Your task to perform on an android device: Open the stopwatch Image 0: 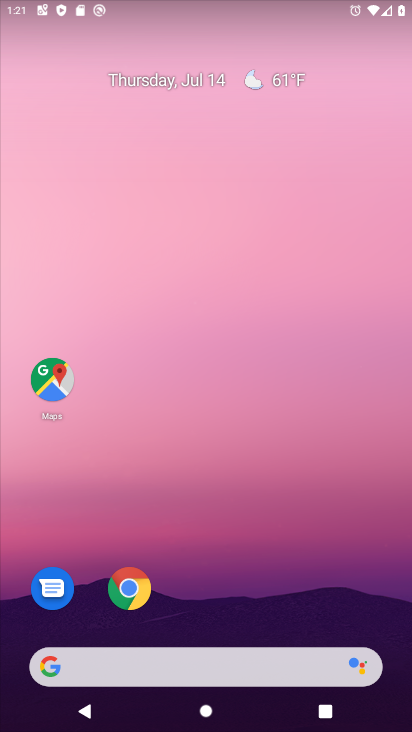
Step 0: drag from (310, 603) to (348, 286)
Your task to perform on an android device: Open the stopwatch Image 1: 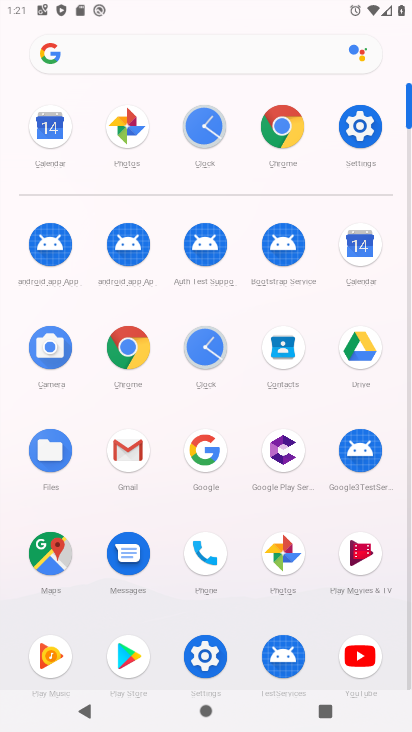
Step 1: click (200, 107)
Your task to perform on an android device: Open the stopwatch Image 2: 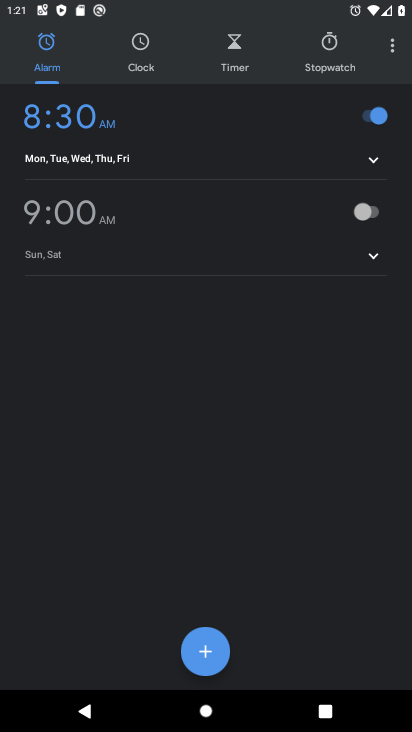
Step 2: click (326, 33)
Your task to perform on an android device: Open the stopwatch Image 3: 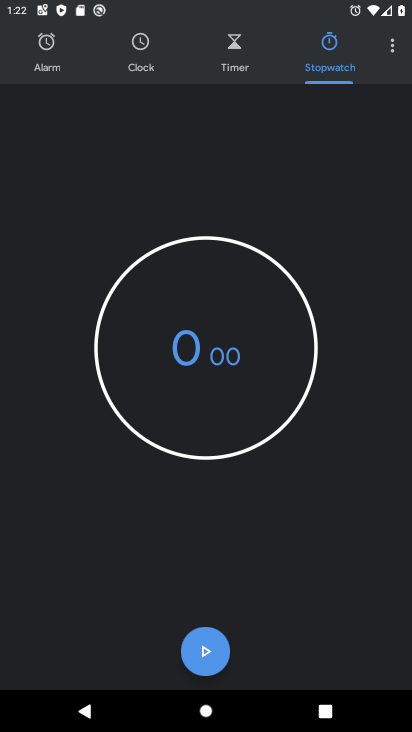
Step 3: task complete